Your task to perform on an android device: check data usage Image 0: 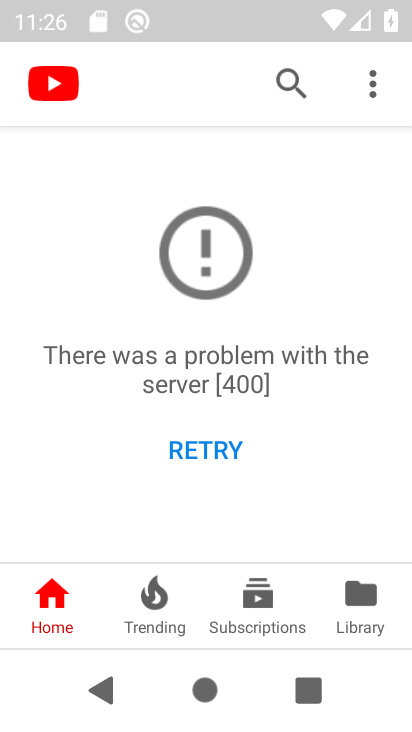
Step 0: press home button
Your task to perform on an android device: check data usage Image 1: 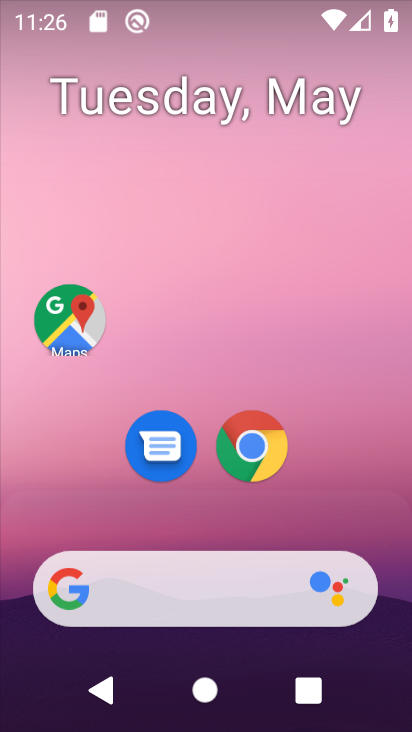
Step 1: drag from (175, 3) to (4, 549)
Your task to perform on an android device: check data usage Image 2: 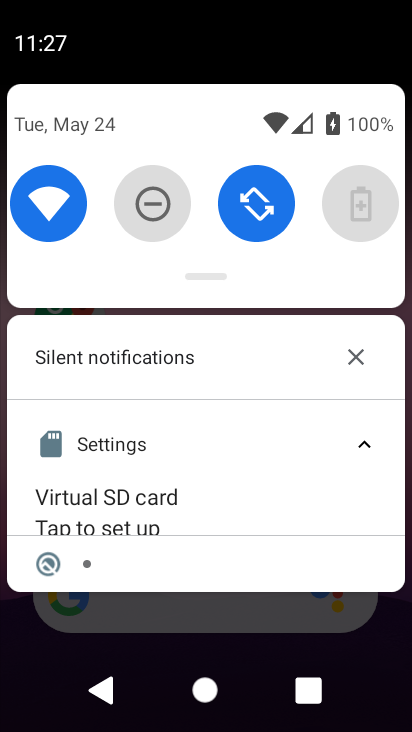
Step 2: drag from (192, 284) to (198, 730)
Your task to perform on an android device: check data usage Image 3: 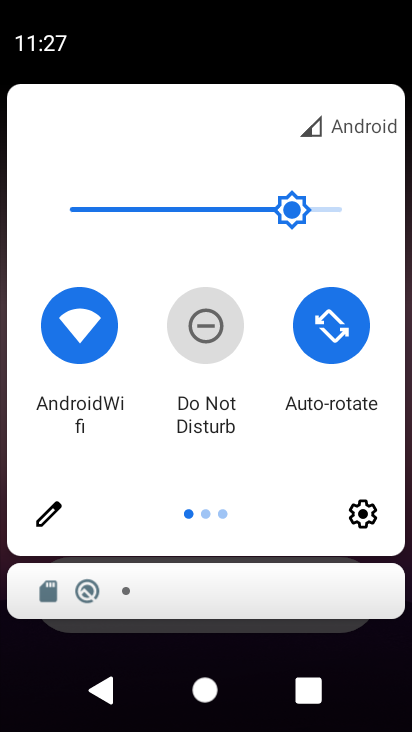
Step 3: drag from (378, 340) to (6, 372)
Your task to perform on an android device: check data usage Image 4: 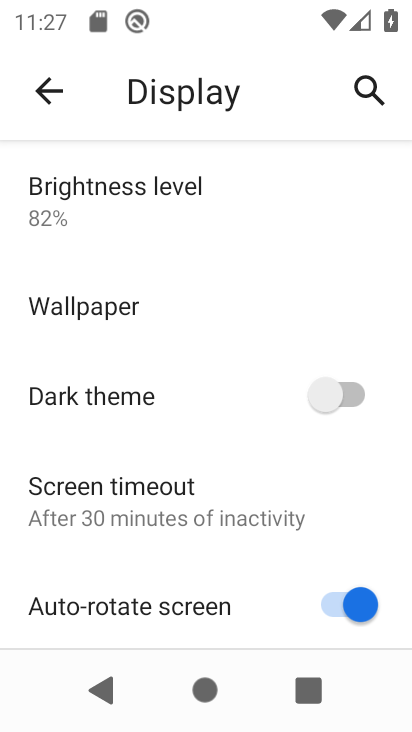
Step 4: press home button
Your task to perform on an android device: check data usage Image 5: 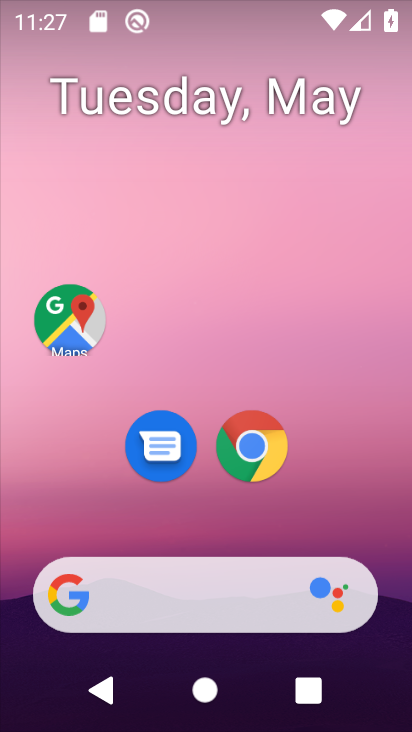
Step 5: drag from (258, 5) to (179, 717)
Your task to perform on an android device: check data usage Image 6: 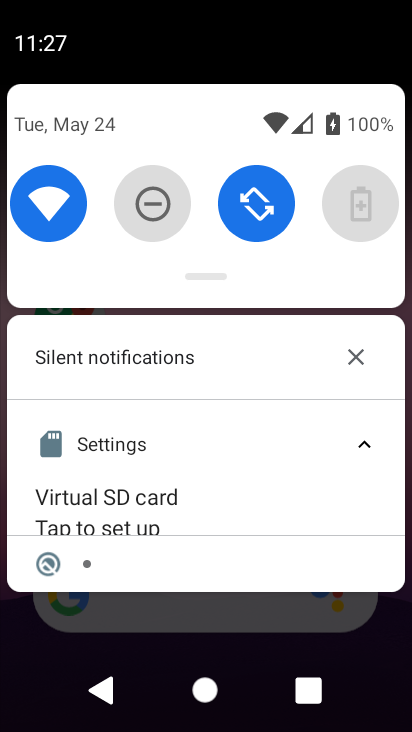
Step 6: drag from (219, 283) to (190, 730)
Your task to perform on an android device: check data usage Image 7: 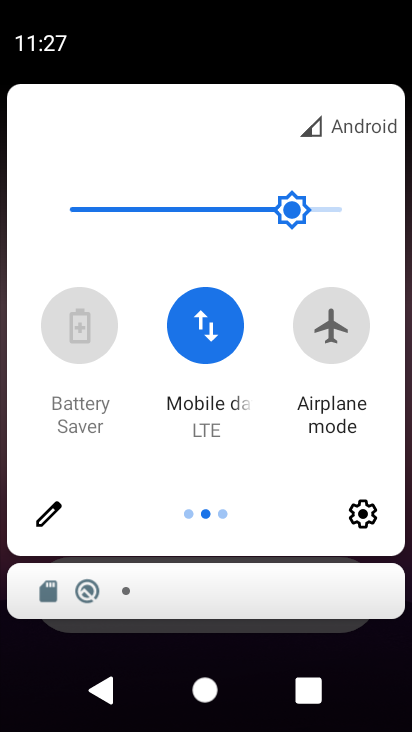
Step 7: click (206, 333)
Your task to perform on an android device: check data usage Image 8: 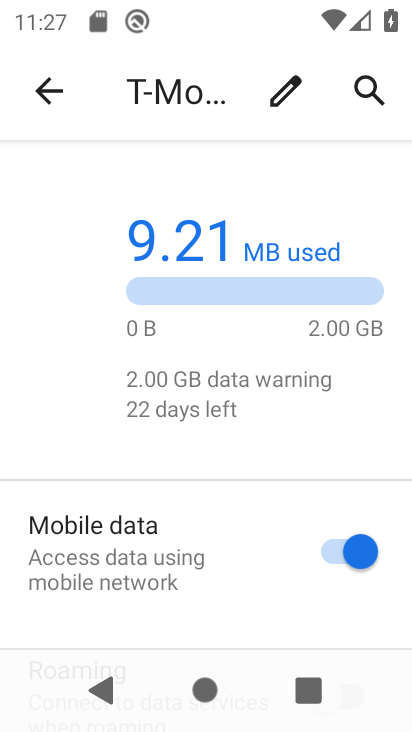
Step 8: task complete